Your task to perform on an android device: manage bookmarks in the chrome app Image 0: 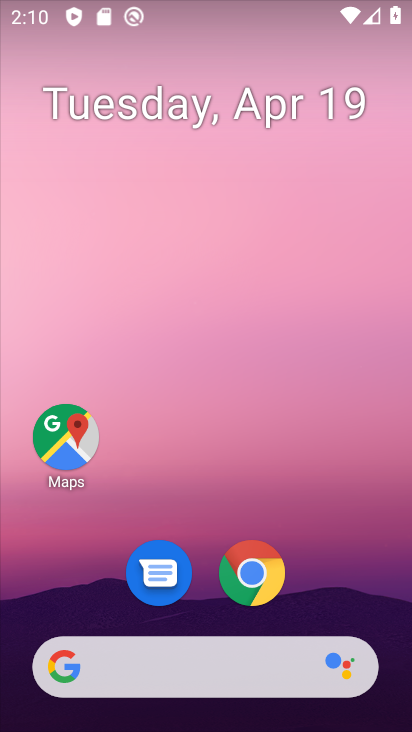
Step 0: click (246, 571)
Your task to perform on an android device: manage bookmarks in the chrome app Image 1: 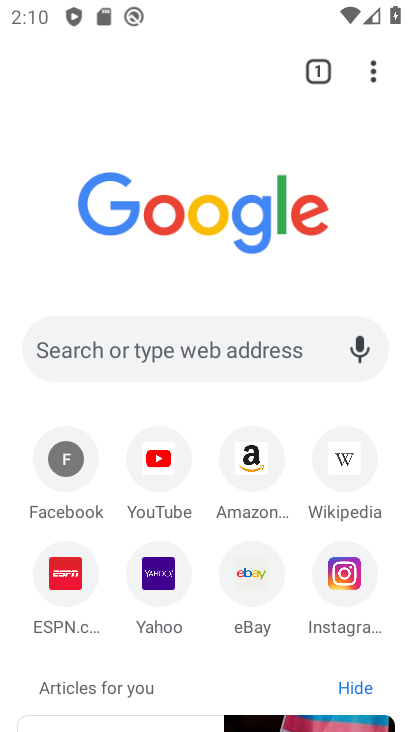
Step 1: click (373, 70)
Your task to perform on an android device: manage bookmarks in the chrome app Image 2: 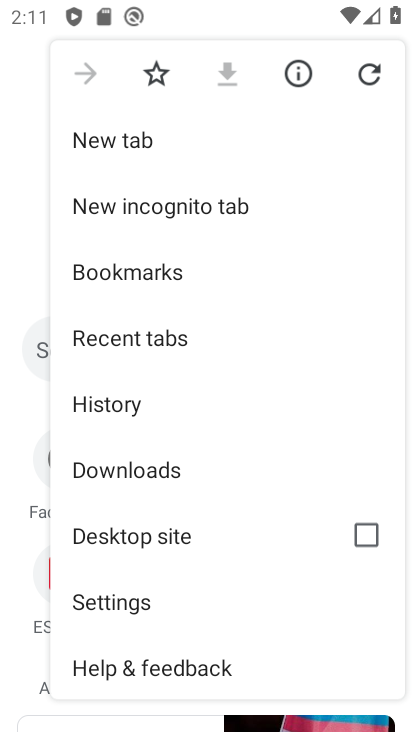
Step 2: click (153, 270)
Your task to perform on an android device: manage bookmarks in the chrome app Image 3: 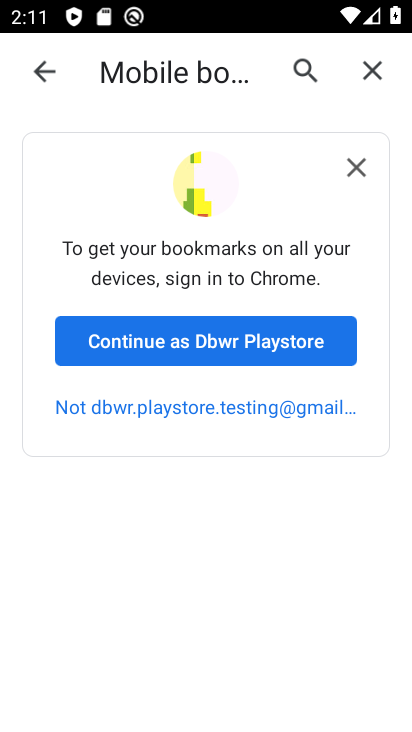
Step 3: click (200, 331)
Your task to perform on an android device: manage bookmarks in the chrome app Image 4: 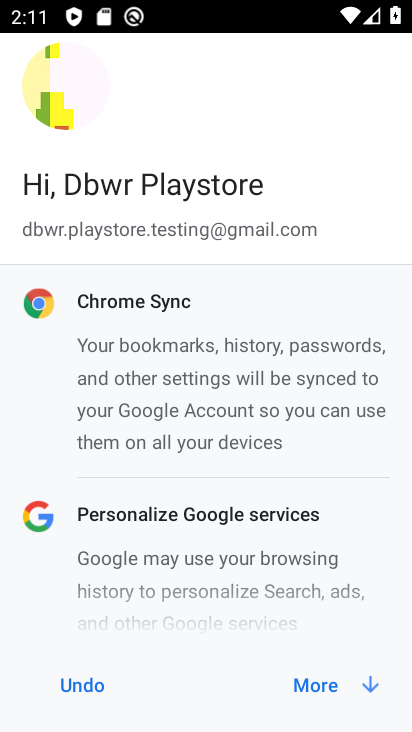
Step 4: click (324, 685)
Your task to perform on an android device: manage bookmarks in the chrome app Image 5: 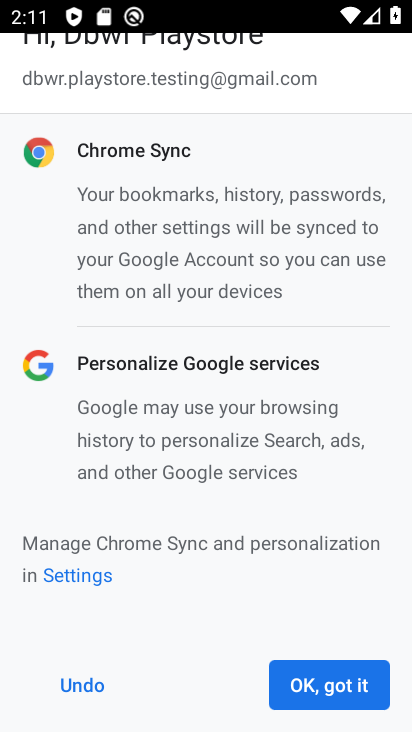
Step 5: click (324, 685)
Your task to perform on an android device: manage bookmarks in the chrome app Image 6: 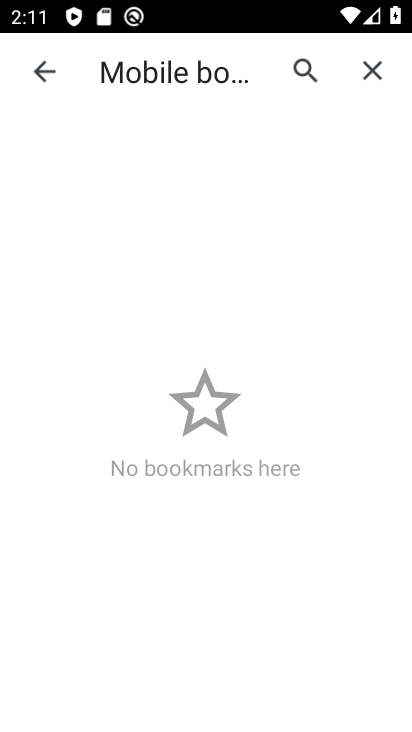
Step 6: task complete